Your task to perform on an android device: What's on my calendar today? Image 0: 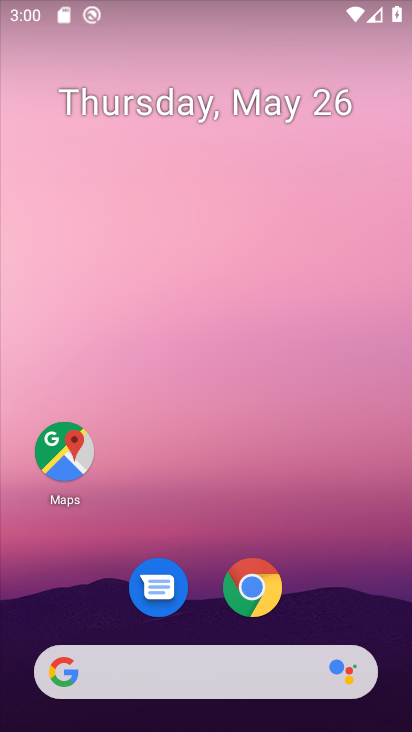
Step 0: drag from (287, 604) to (247, 221)
Your task to perform on an android device: What's on my calendar today? Image 1: 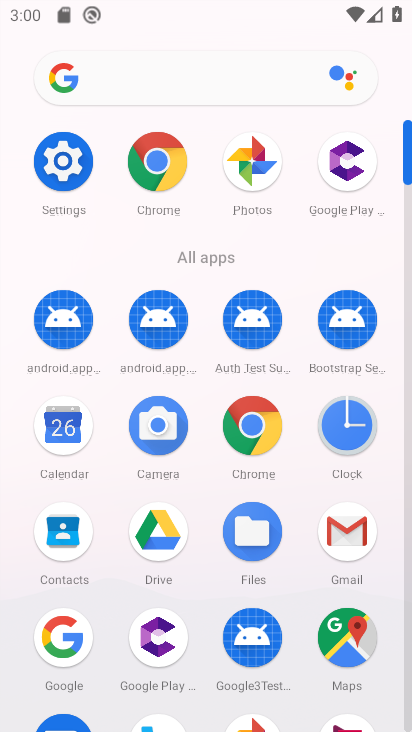
Step 1: click (61, 423)
Your task to perform on an android device: What's on my calendar today? Image 2: 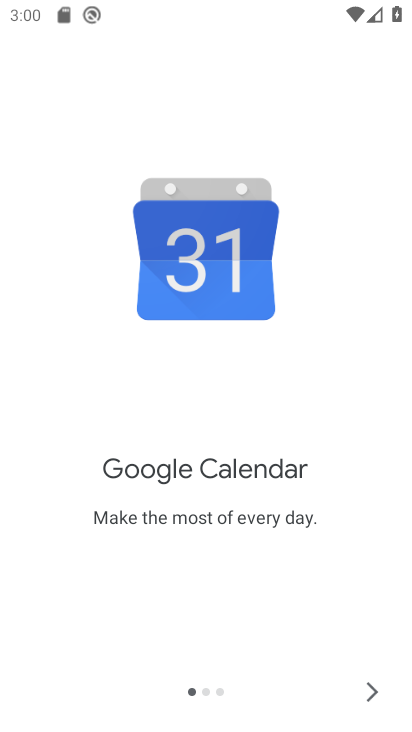
Step 2: click (370, 688)
Your task to perform on an android device: What's on my calendar today? Image 3: 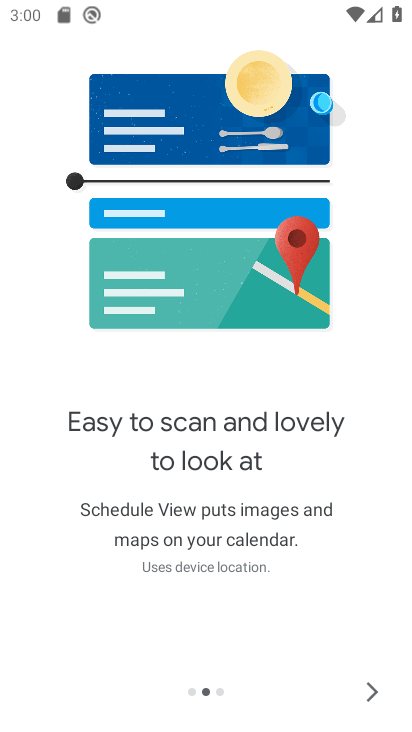
Step 3: click (373, 698)
Your task to perform on an android device: What's on my calendar today? Image 4: 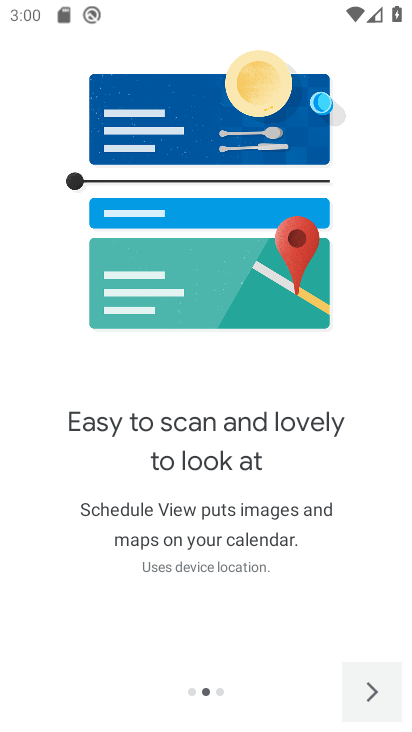
Step 4: click (376, 694)
Your task to perform on an android device: What's on my calendar today? Image 5: 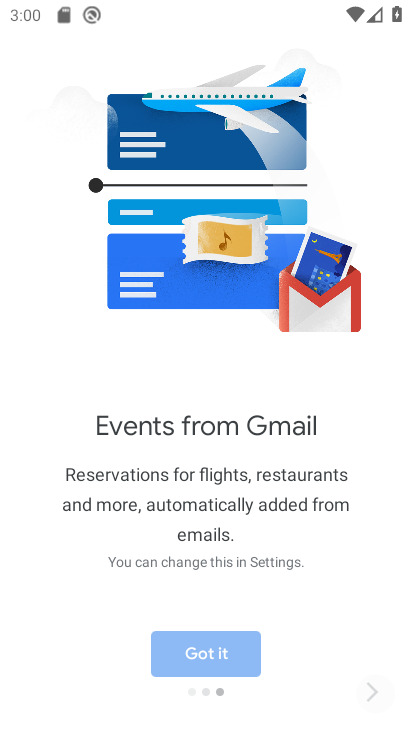
Step 5: click (378, 695)
Your task to perform on an android device: What's on my calendar today? Image 6: 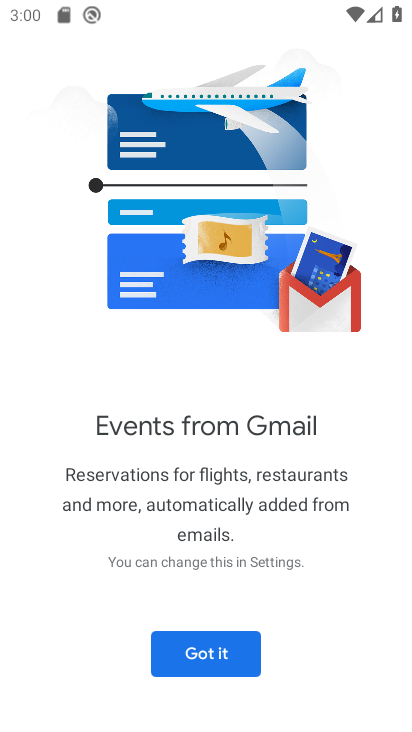
Step 6: click (205, 656)
Your task to perform on an android device: What's on my calendar today? Image 7: 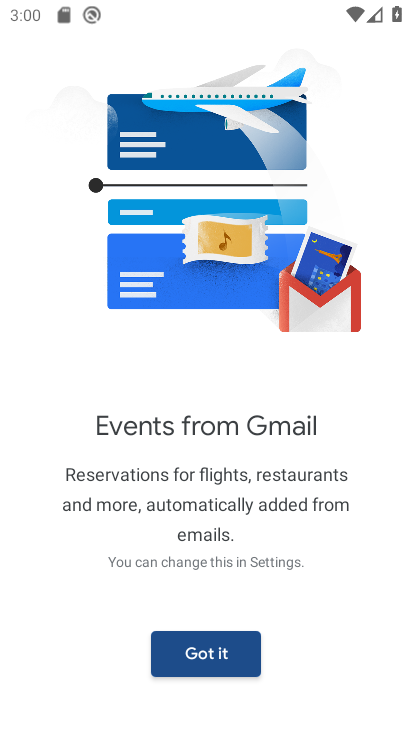
Step 7: click (205, 656)
Your task to perform on an android device: What's on my calendar today? Image 8: 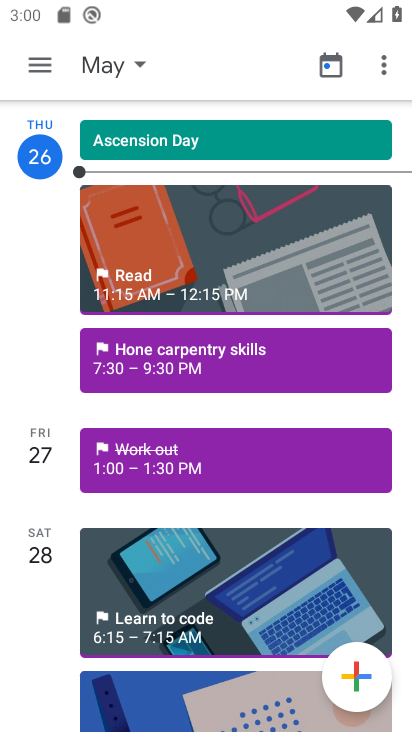
Step 8: drag from (196, 550) to (126, 220)
Your task to perform on an android device: What's on my calendar today? Image 9: 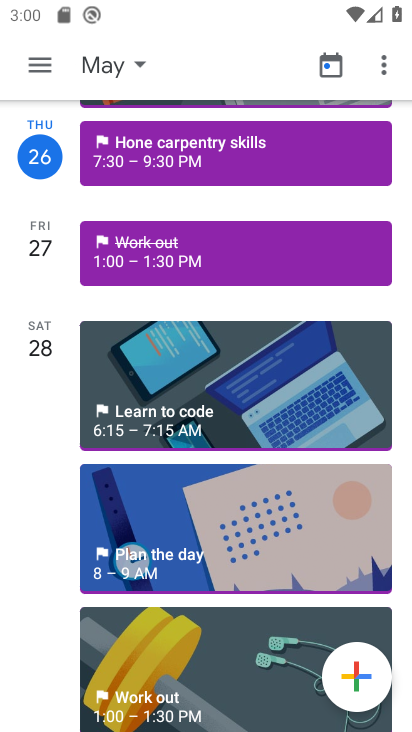
Step 9: drag from (218, 539) to (194, 278)
Your task to perform on an android device: What's on my calendar today? Image 10: 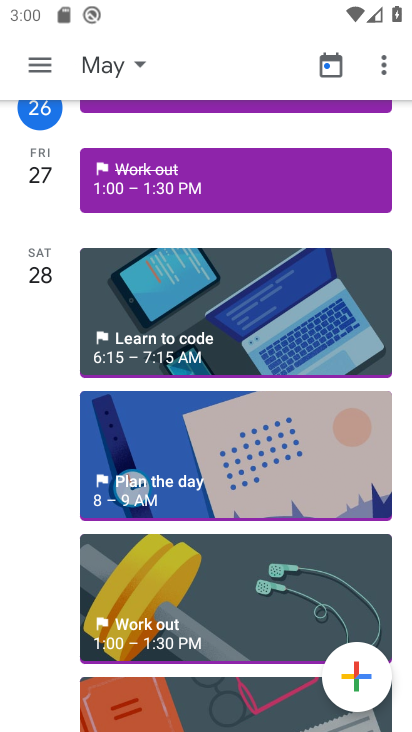
Step 10: drag from (144, 242) to (257, 529)
Your task to perform on an android device: What's on my calendar today? Image 11: 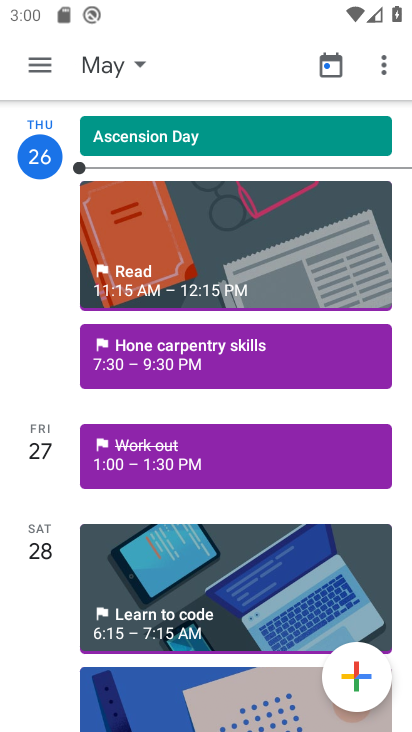
Step 11: drag from (275, 399) to (289, 549)
Your task to perform on an android device: What's on my calendar today? Image 12: 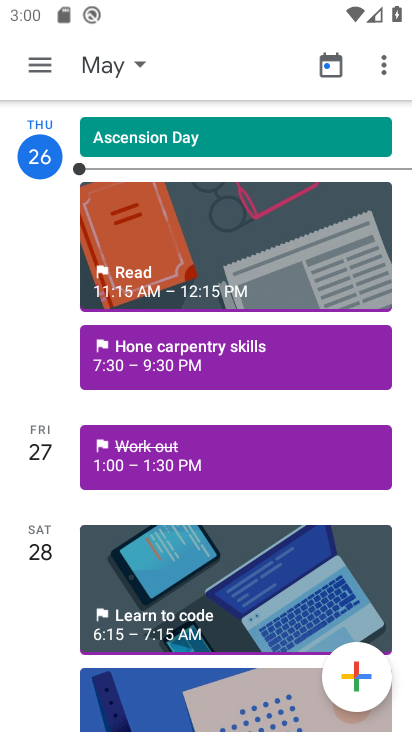
Step 12: drag from (182, 225) to (226, 546)
Your task to perform on an android device: What's on my calendar today? Image 13: 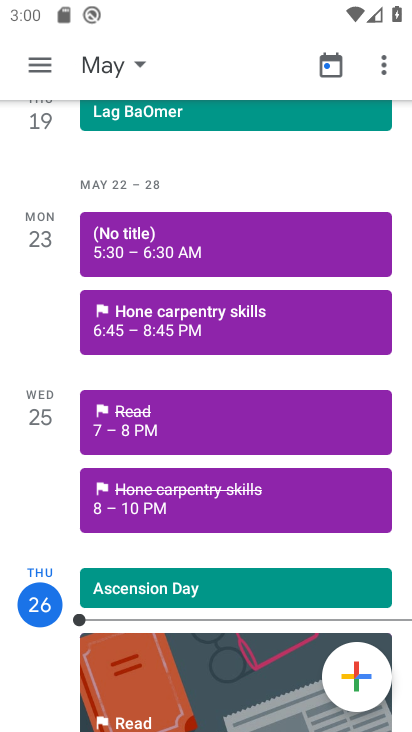
Step 13: drag from (179, 541) to (212, 566)
Your task to perform on an android device: What's on my calendar today? Image 14: 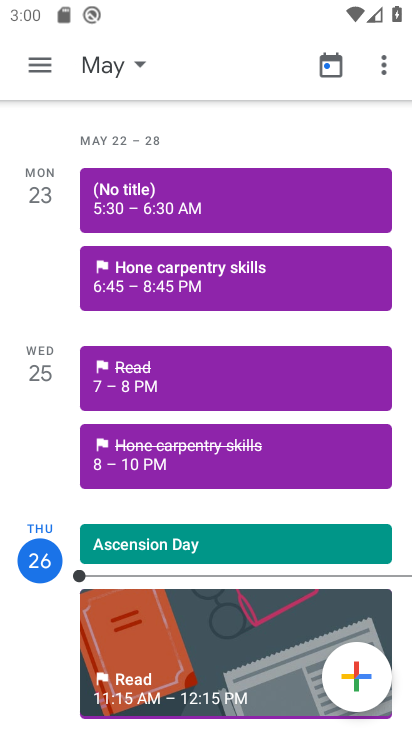
Step 14: drag from (161, 262) to (225, 555)
Your task to perform on an android device: What's on my calendar today? Image 15: 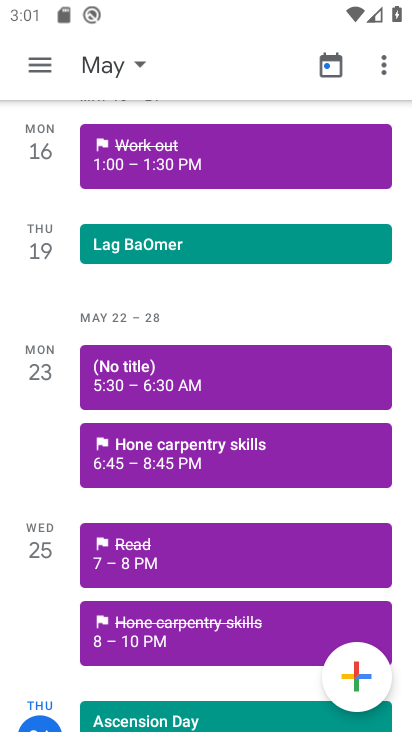
Step 15: press back button
Your task to perform on an android device: What's on my calendar today? Image 16: 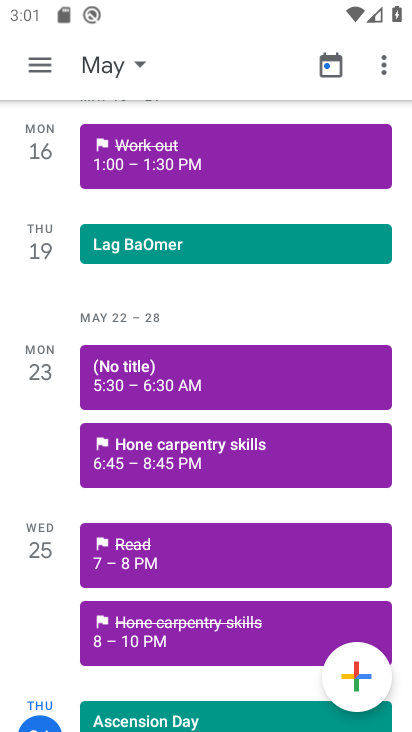
Step 16: press back button
Your task to perform on an android device: What's on my calendar today? Image 17: 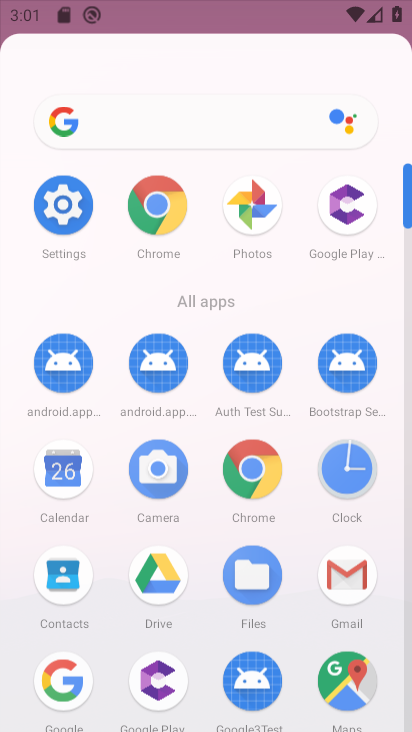
Step 17: press back button
Your task to perform on an android device: What's on my calendar today? Image 18: 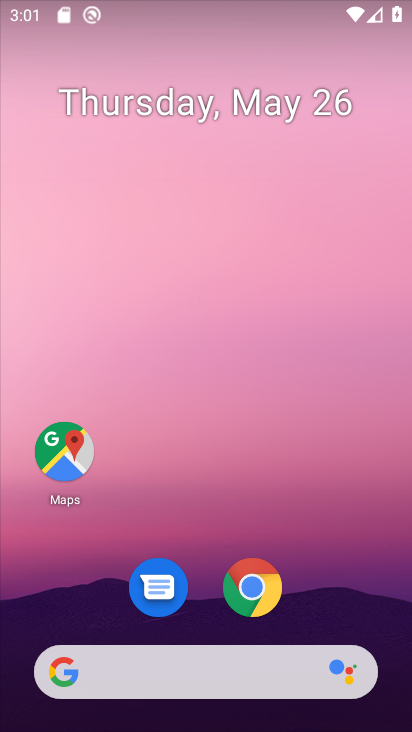
Step 18: drag from (221, 666) to (158, 351)
Your task to perform on an android device: What's on my calendar today? Image 19: 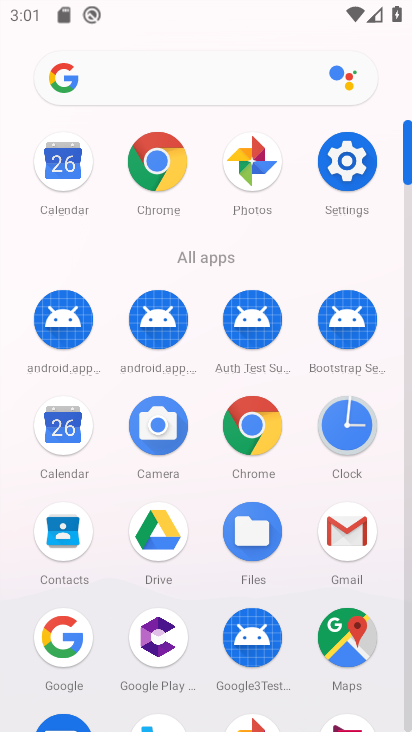
Step 19: click (63, 432)
Your task to perform on an android device: What's on my calendar today? Image 20: 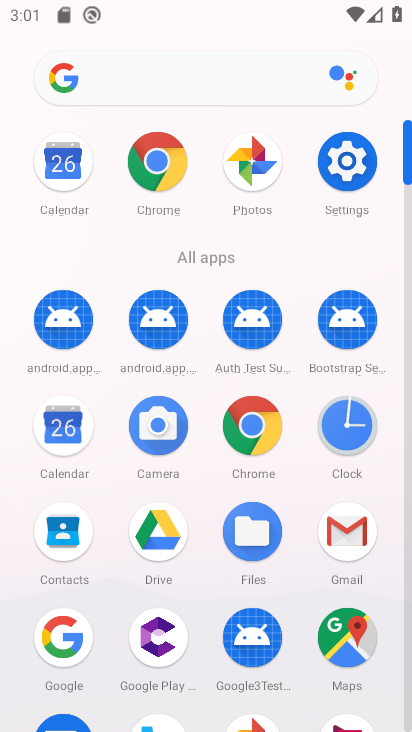
Step 20: click (63, 432)
Your task to perform on an android device: What's on my calendar today? Image 21: 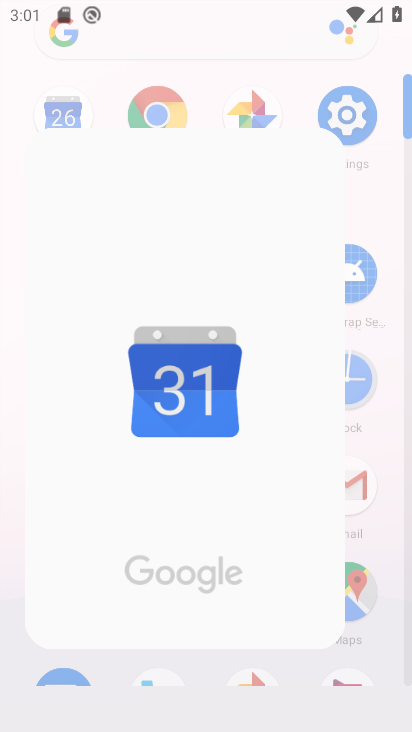
Step 21: click (63, 432)
Your task to perform on an android device: What's on my calendar today? Image 22: 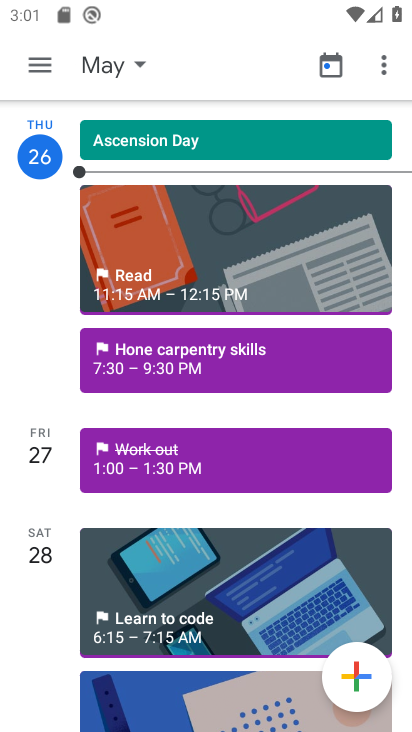
Step 22: task complete